Your task to perform on an android device: stop showing notifications on the lock screen Image 0: 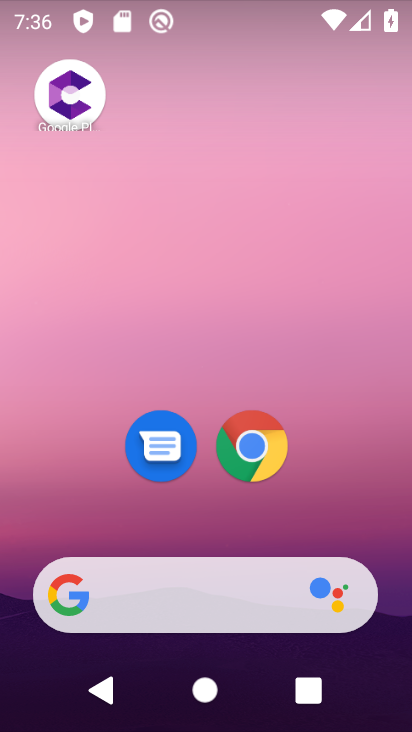
Step 0: drag from (383, 640) to (337, 123)
Your task to perform on an android device: stop showing notifications on the lock screen Image 1: 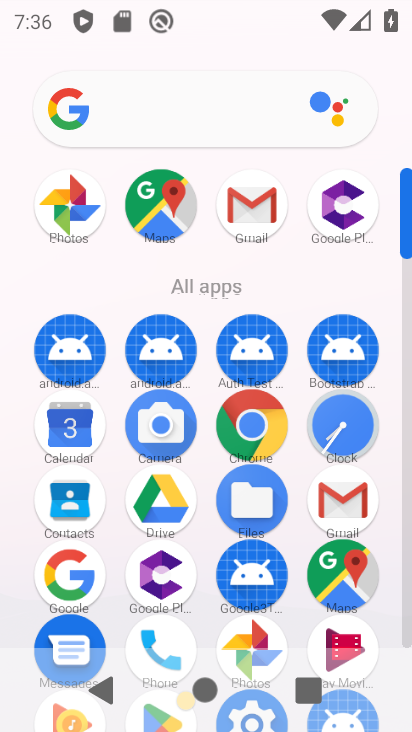
Step 1: drag from (200, 603) to (204, 361)
Your task to perform on an android device: stop showing notifications on the lock screen Image 2: 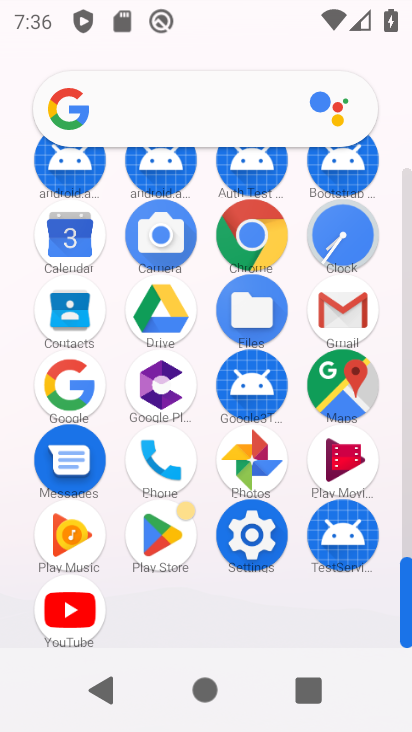
Step 2: click (243, 529)
Your task to perform on an android device: stop showing notifications on the lock screen Image 3: 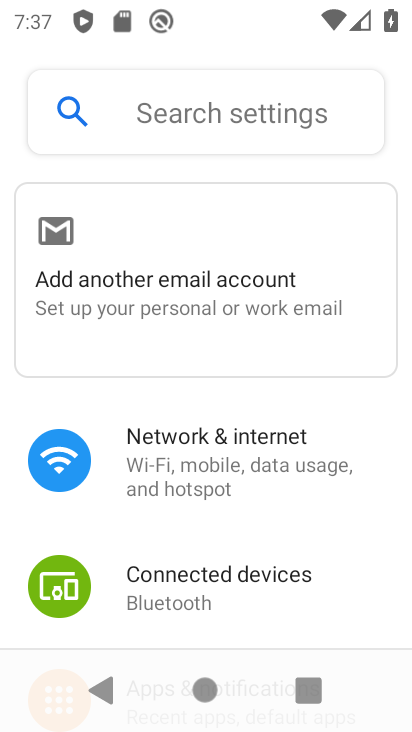
Step 3: drag from (236, 596) to (222, 284)
Your task to perform on an android device: stop showing notifications on the lock screen Image 4: 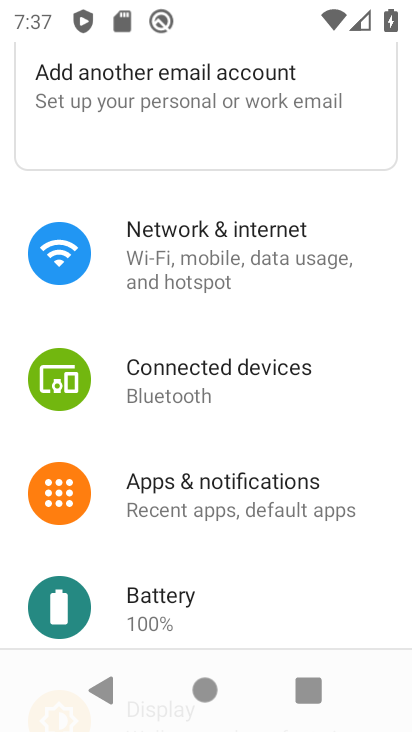
Step 4: click (176, 480)
Your task to perform on an android device: stop showing notifications on the lock screen Image 5: 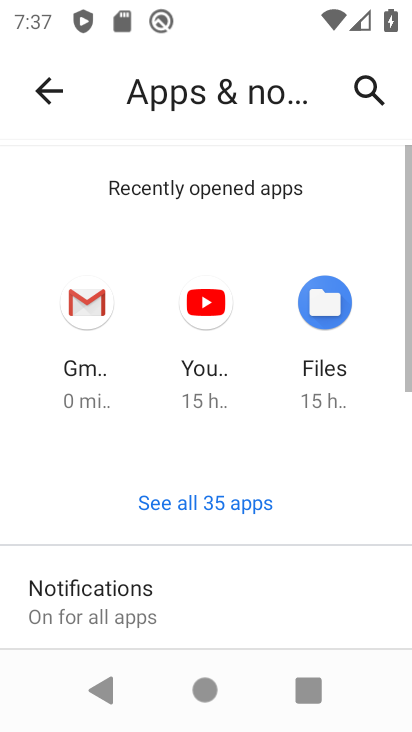
Step 5: click (100, 594)
Your task to perform on an android device: stop showing notifications on the lock screen Image 6: 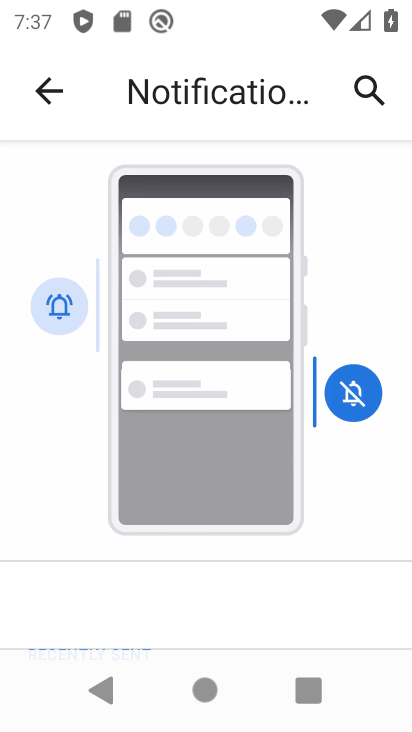
Step 6: drag from (290, 597) to (256, 122)
Your task to perform on an android device: stop showing notifications on the lock screen Image 7: 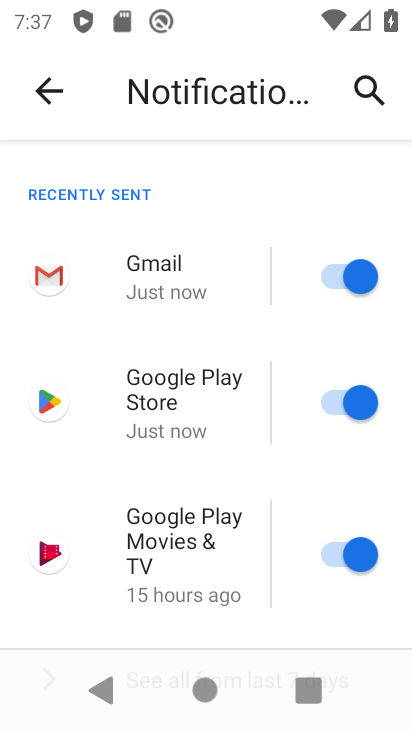
Step 7: drag from (278, 630) to (248, 213)
Your task to perform on an android device: stop showing notifications on the lock screen Image 8: 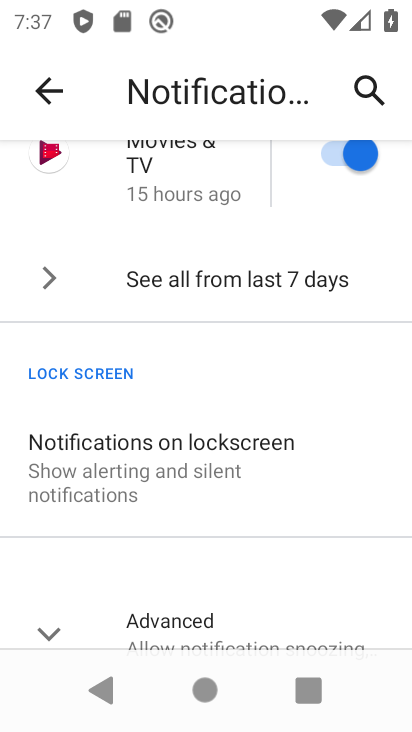
Step 8: click (130, 458)
Your task to perform on an android device: stop showing notifications on the lock screen Image 9: 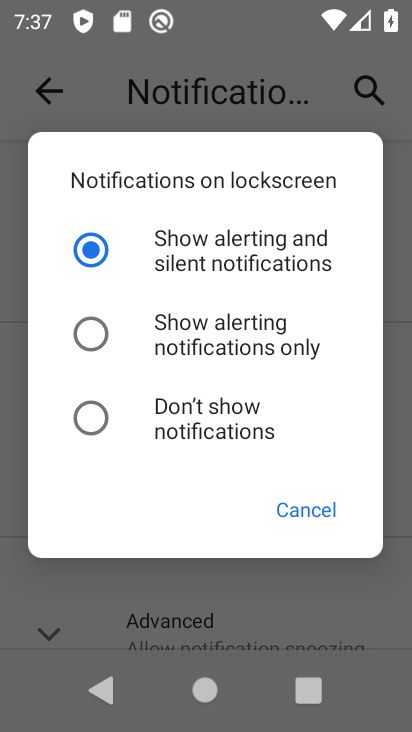
Step 9: click (93, 418)
Your task to perform on an android device: stop showing notifications on the lock screen Image 10: 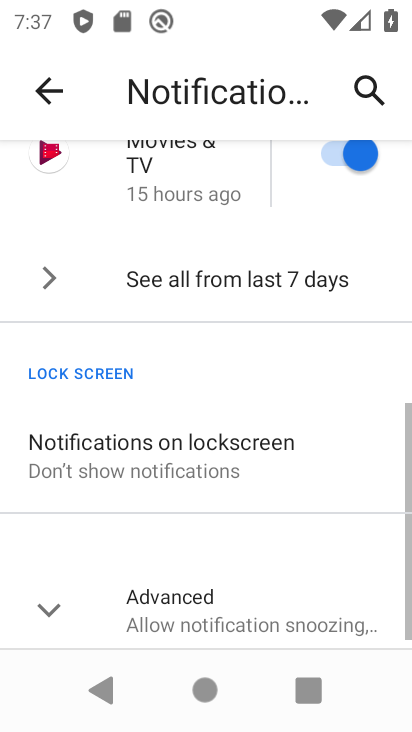
Step 10: task complete